Your task to perform on an android device: Open Chrome and go to the settings page Image 0: 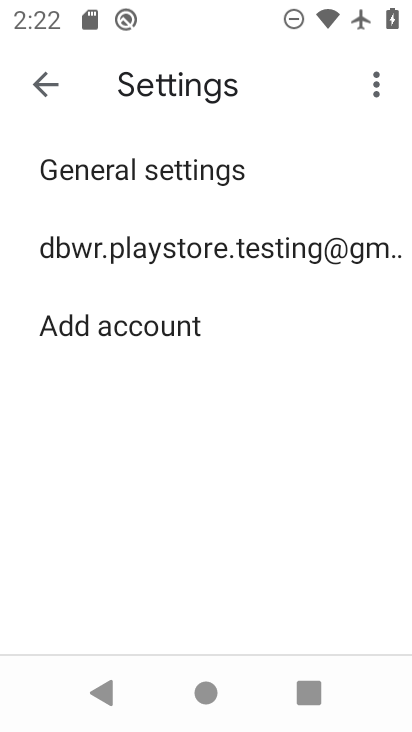
Step 0: press home button
Your task to perform on an android device: Open Chrome and go to the settings page Image 1: 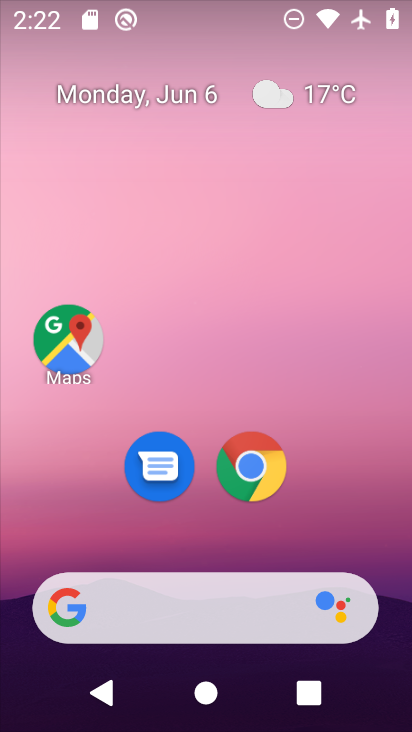
Step 1: click (259, 467)
Your task to perform on an android device: Open Chrome and go to the settings page Image 2: 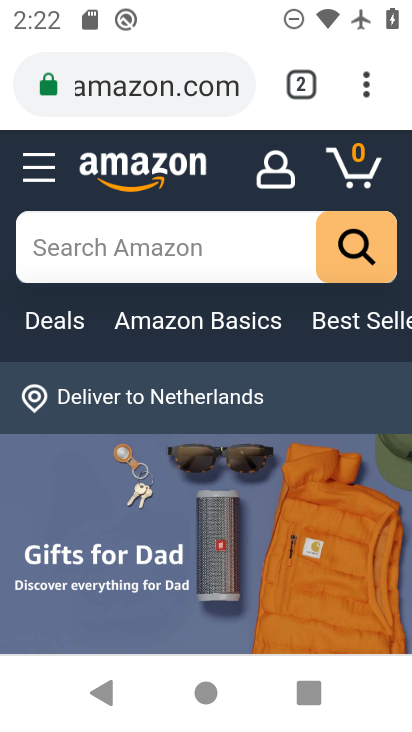
Step 2: task complete